Your task to perform on an android device: Open Google Chrome and open the bookmarks view Image 0: 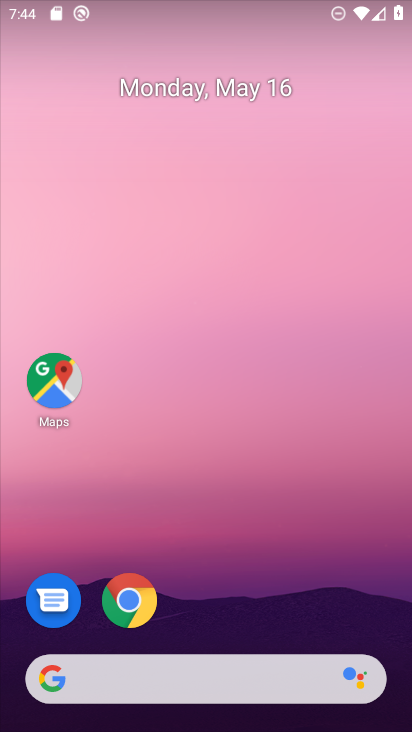
Step 0: click (122, 605)
Your task to perform on an android device: Open Google Chrome and open the bookmarks view Image 1: 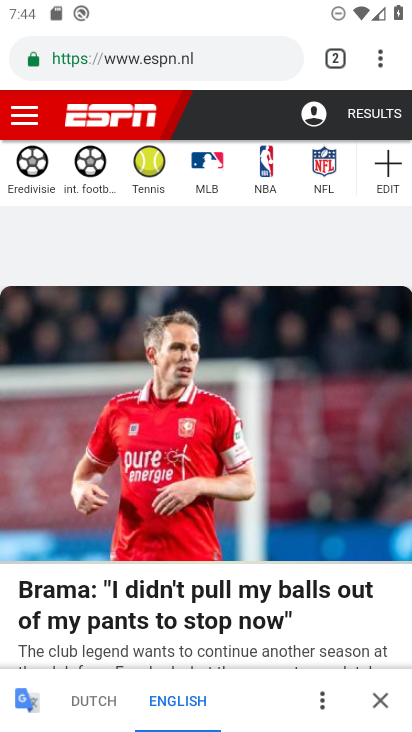
Step 1: task complete